Your task to perform on an android device: Open accessibility settings Image 0: 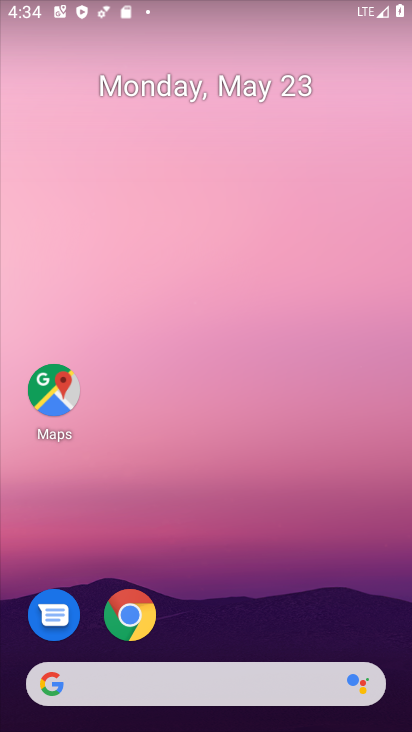
Step 0: drag from (223, 616) to (263, 135)
Your task to perform on an android device: Open accessibility settings Image 1: 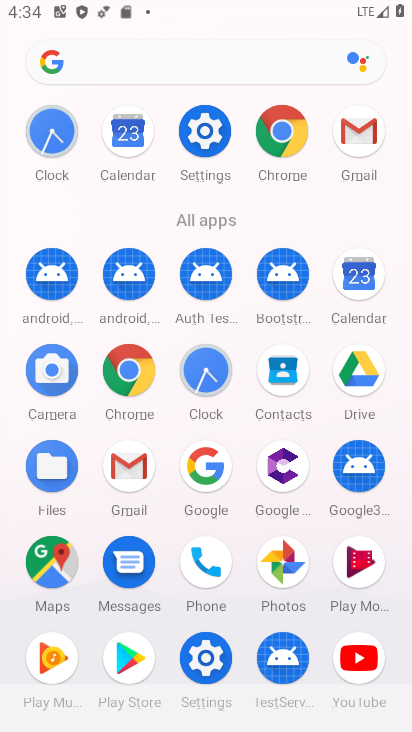
Step 1: click (207, 126)
Your task to perform on an android device: Open accessibility settings Image 2: 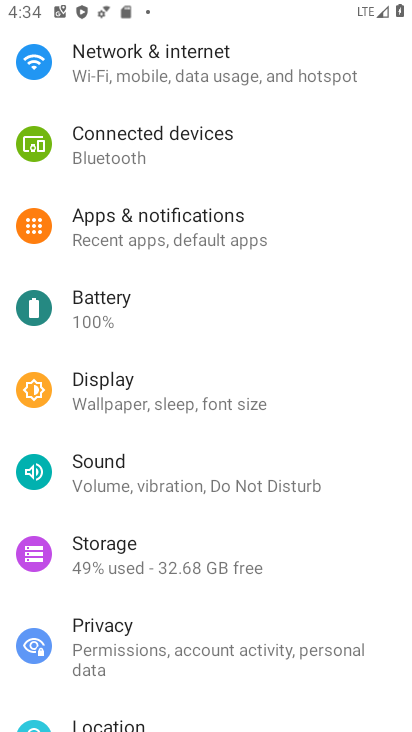
Step 2: drag from (207, 602) to (267, 130)
Your task to perform on an android device: Open accessibility settings Image 3: 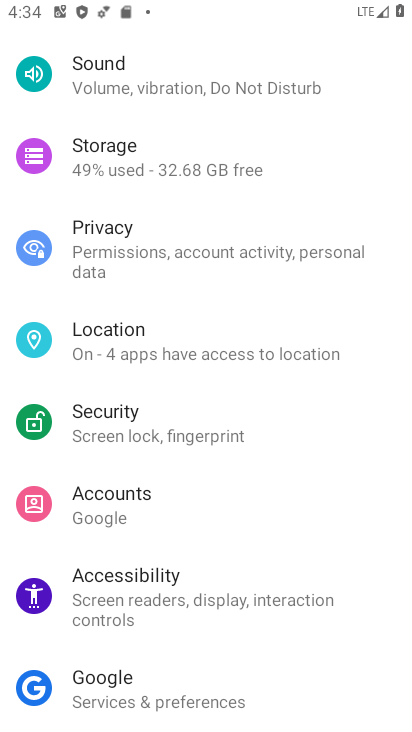
Step 3: click (135, 575)
Your task to perform on an android device: Open accessibility settings Image 4: 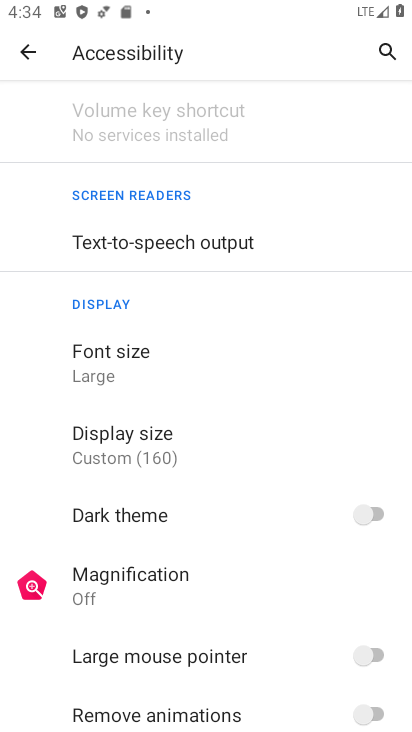
Step 4: task complete